Your task to perform on an android device: toggle priority inbox in the gmail app Image 0: 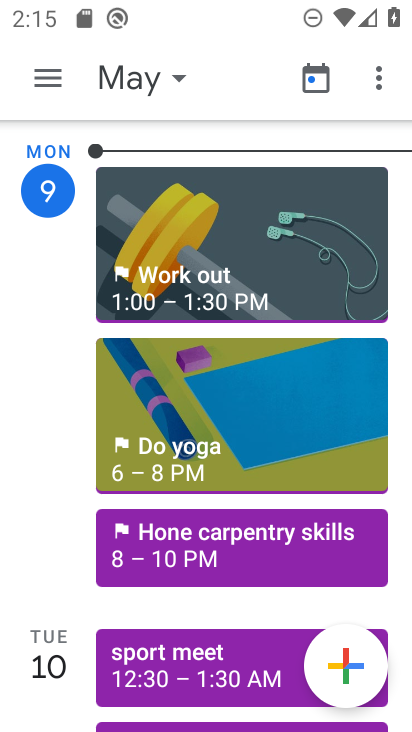
Step 0: press home button
Your task to perform on an android device: toggle priority inbox in the gmail app Image 1: 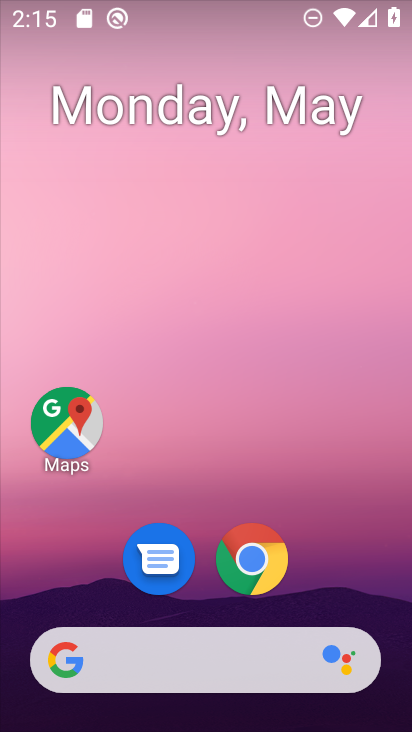
Step 1: drag from (369, 602) to (370, 54)
Your task to perform on an android device: toggle priority inbox in the gmail app Image 2: 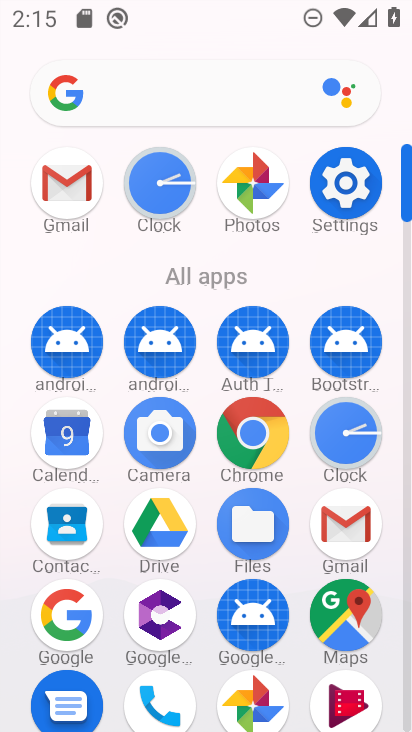
Step 2: click (61, 196)
Your task to perform on an android device: toggle priority inbox in the gmail app Image 3: 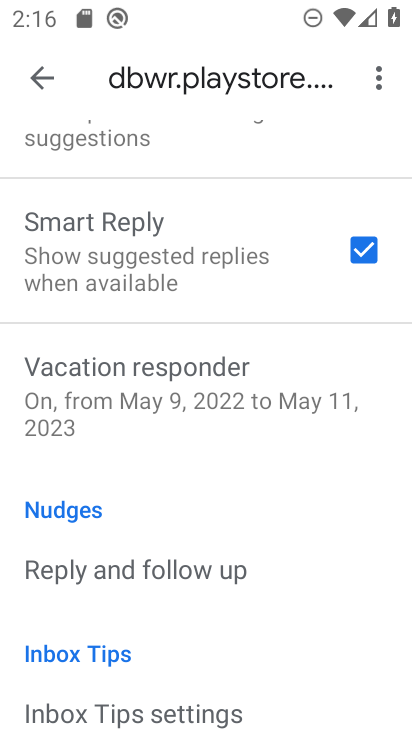
Step 3: drag from (123, 329) to (154, 643)
Your task to perform on an android device: toggle priority inbox in the gmail app Image 4: 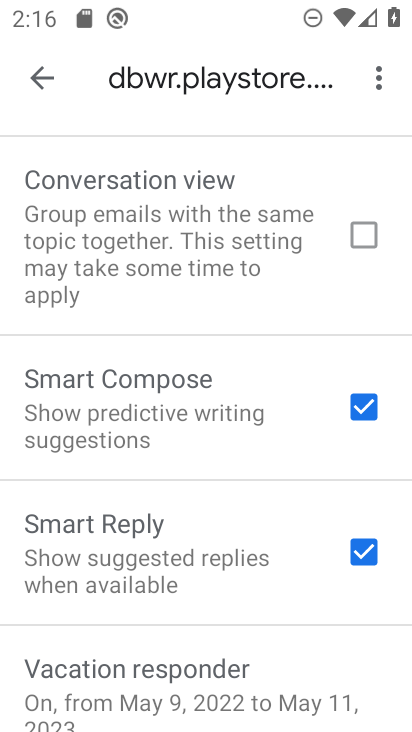
Step 4: drag from (142, 296) to (102, 653)
Your task to perform on an android device: toggle priority inbox in the gmail app Image 5: 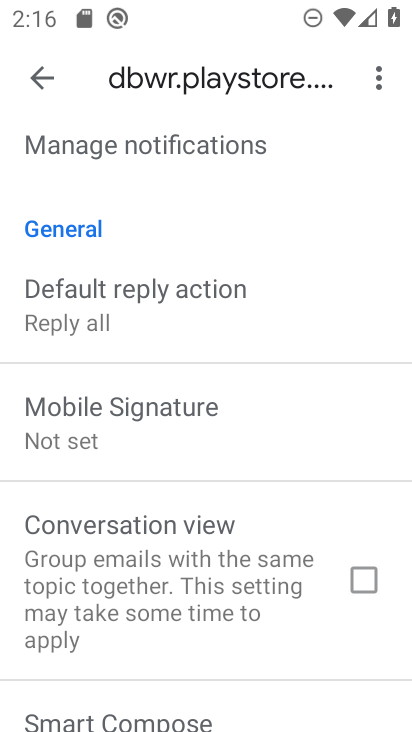
Step 5: drag from (130, 281) to (122, 543)
Your task to perform on an android device: toggle priority inbox in the gmail app Image 6: 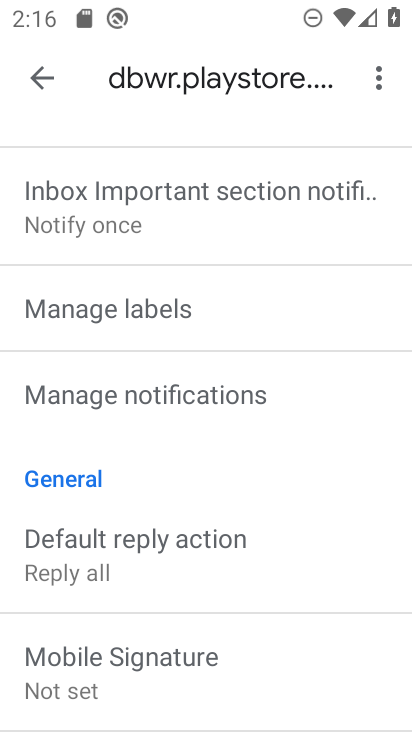
Step 6: drag from (119, 308) to (90, 664)
Your task to perform on an android device: toggle priority inbox in the gmail app Image 7: 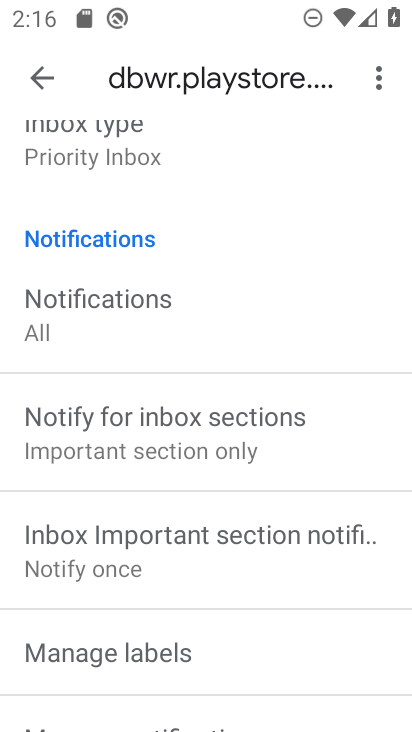
Step 7: drag from (107, 281) to (105, 524)
Your task to perform on an android device: toggle priority inbox in the gmail app Image 8: 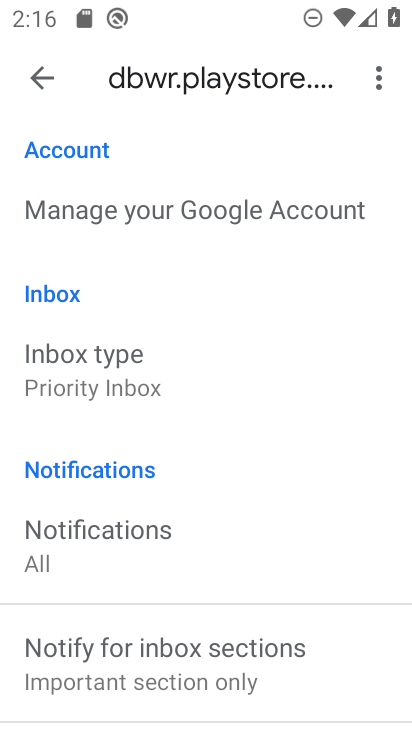
Step 8: click (93, 389)
Your task to perform on an android device: toggle priority inbox in the gmail app Image 9: 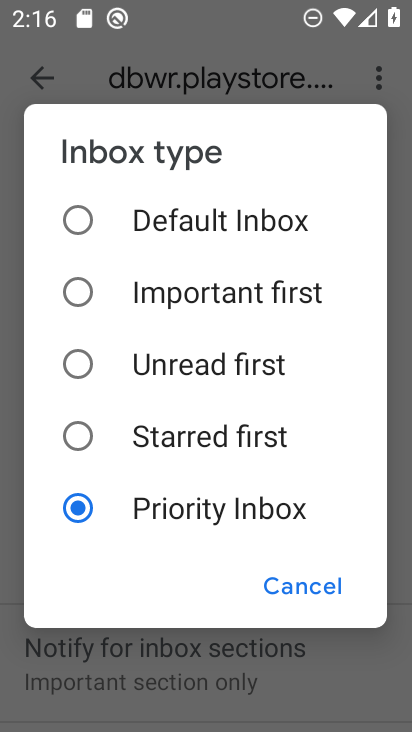
Step 9: click (77, 227)
Your task to perform on an android device: toggle priority inbox in the gmail app Image 10: 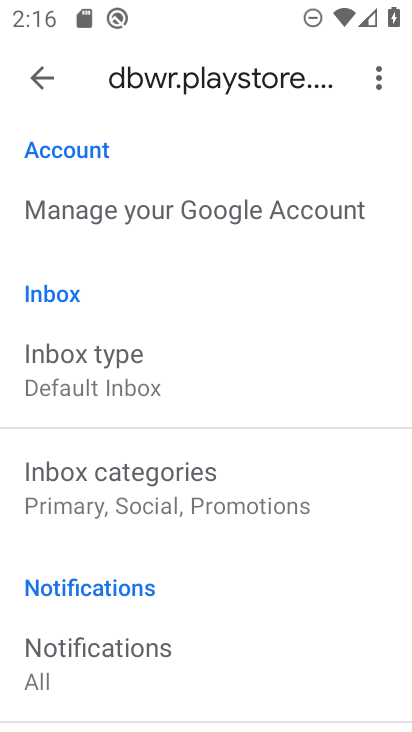
Step 10: task complete